Your task to perform on an android device: see sites visited before in the chrome app Image 0: 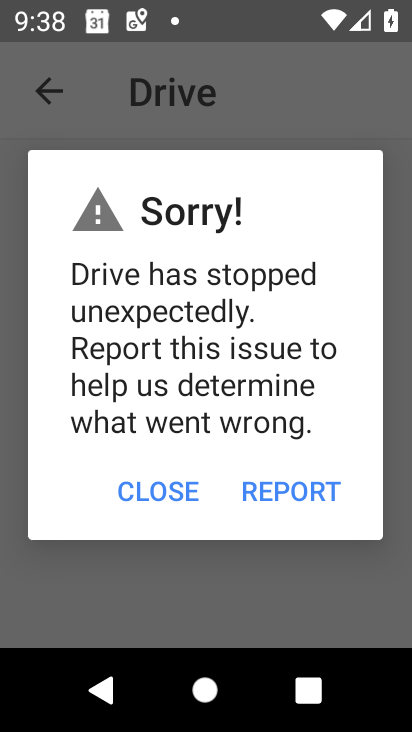
Step 0: press home button
Your task to perform on an android device: see sites visited before in the chrome app Image 1: 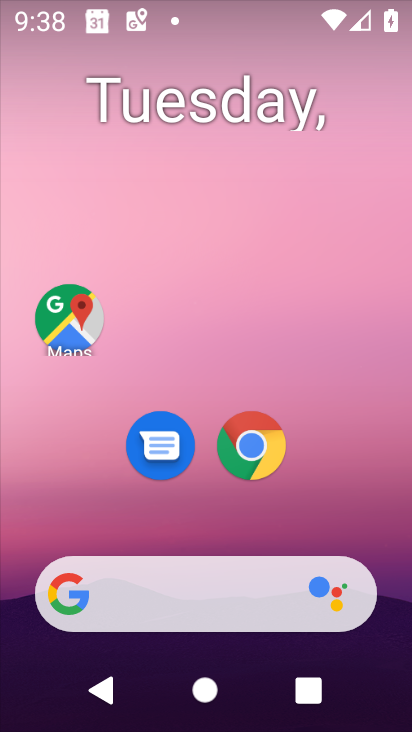
Step 1: click (244, 459)
Your task to perform on an android device: see sites visited before in the chrome app Image 2: 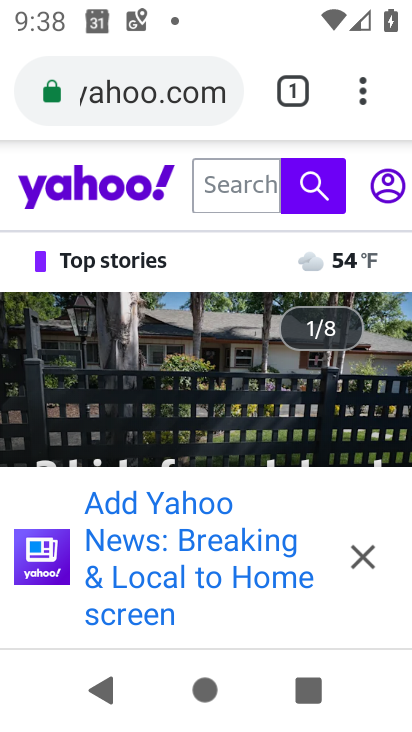
Step 2: click (364, 83)
Your task to perform on an android device: see sites visited before in the chrome app Image 3: 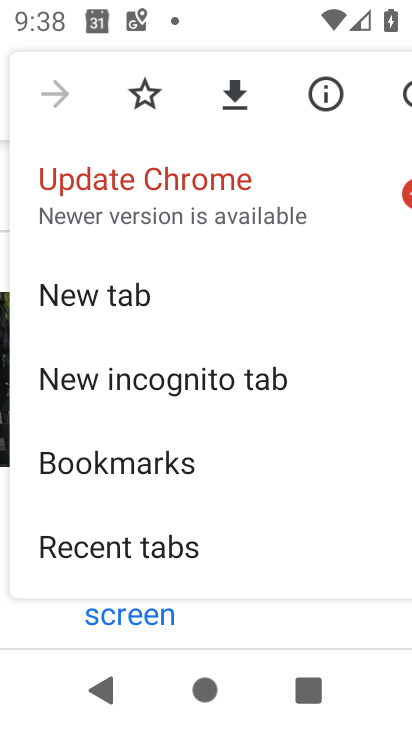
Step 3: drag from (228, 496) to (269, 199)
Your task to perform on an android device: see sites visited before in the chrome app Image 4: 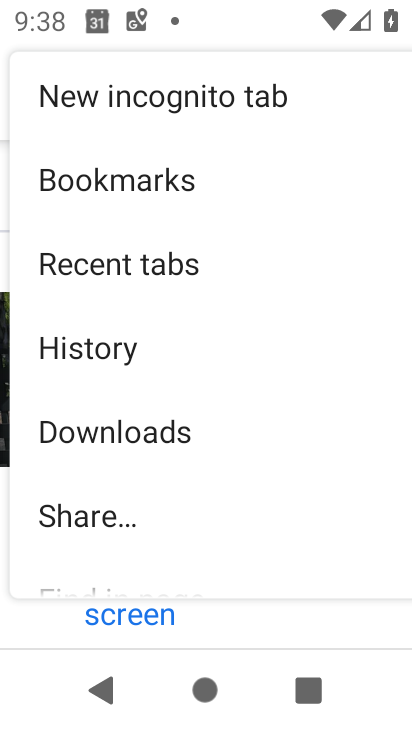
Step 4: click (126, 354)
Your task to perform on an android device: see sites visited before in the chrome app Image 5: 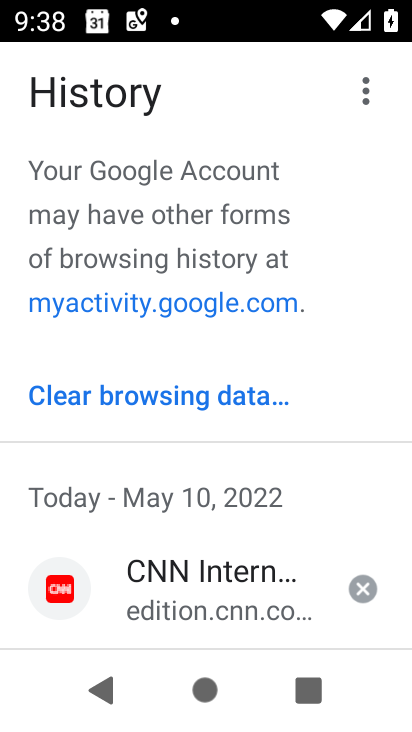
Step 5: task complete